Your task to perform on an android device: delete the emails in spam in the gmail app Image 0: 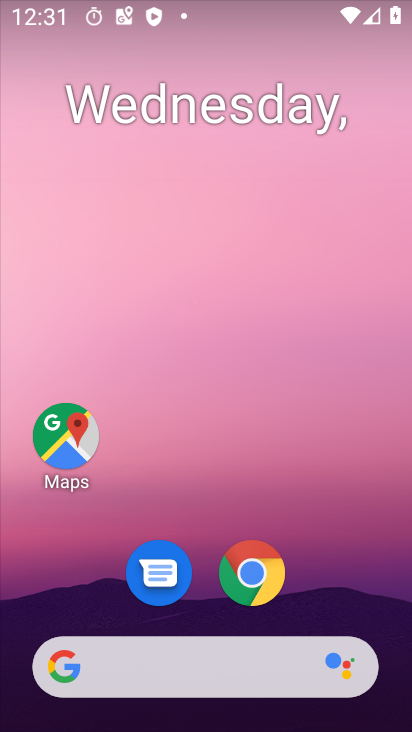
Step 0: drag from (268, 552) to (199, 76)
Your task to perform on an android device: delete the emails in spam in the gmail app Image 1: 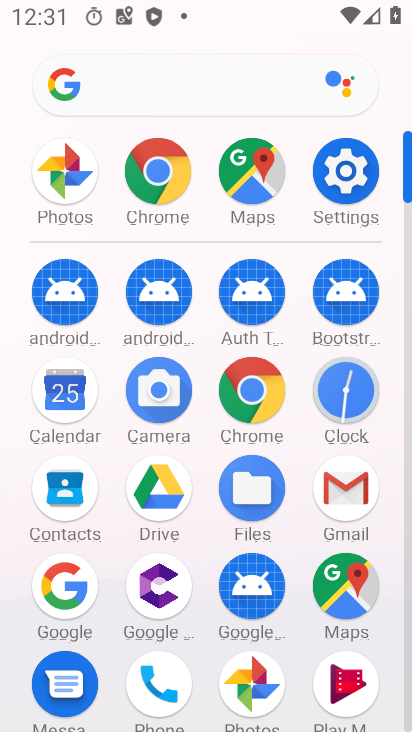
Step 1: click (344, 494)
Your task to perform on an android device: delete the emails in spam in the gmail app Image 2: 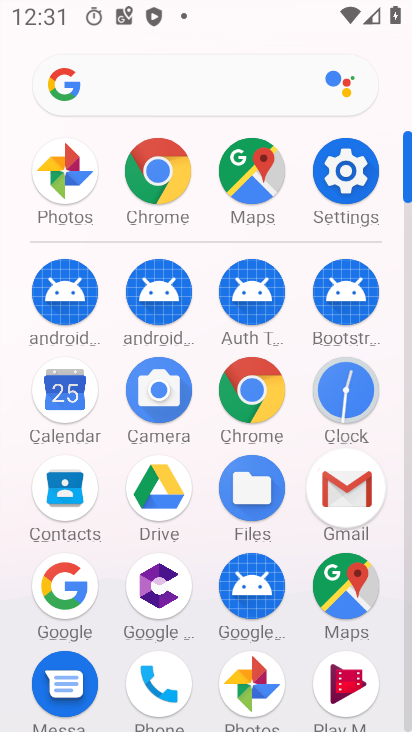
Step 2: click (353, 488)
Your task to perform on an android device: delete the emails in spam in the gmail app Image 3: 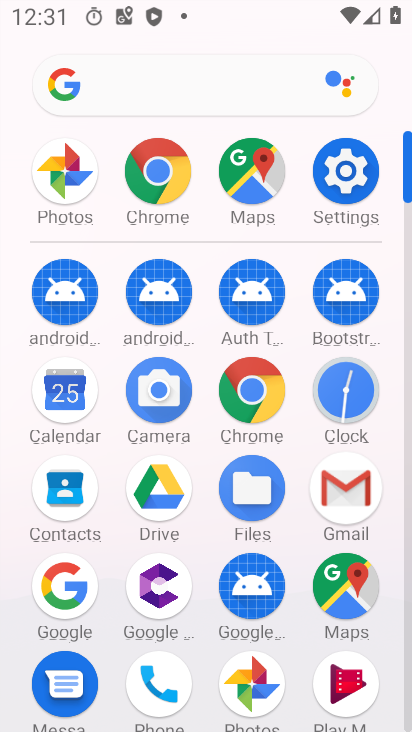
Step 3: click (351, 487)
Your task to perform on an android device: delete the emails in spam in the gmail app Image 4: 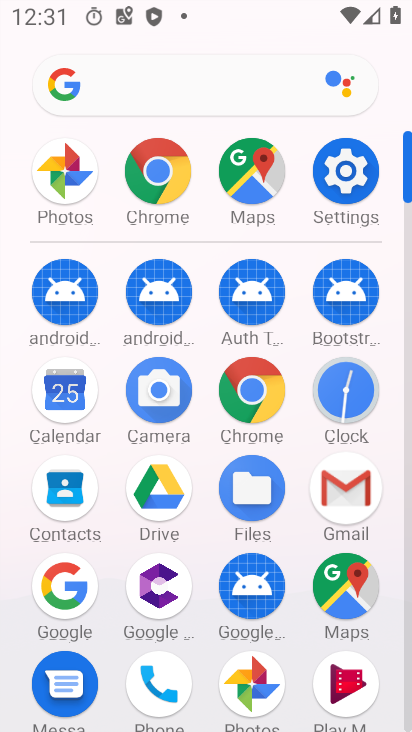
Step 4: click (343, 476)
Your task to perform on an android device: delete the emails in spam in the gmail app Image 5: 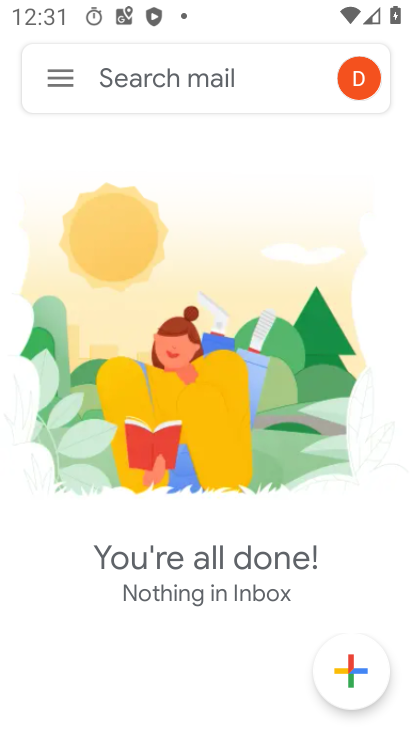
Step 5: click (341, 473)
Your task to perform on an android device: delete the emails in spam in the gmail app Image 6: 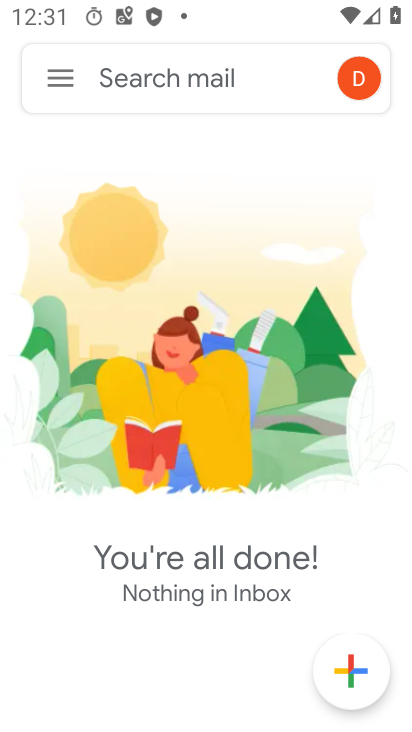
Step 6: click (341, 472)
Your task to perform on an android device: delete the emails in spam in the gmail app Image 7: 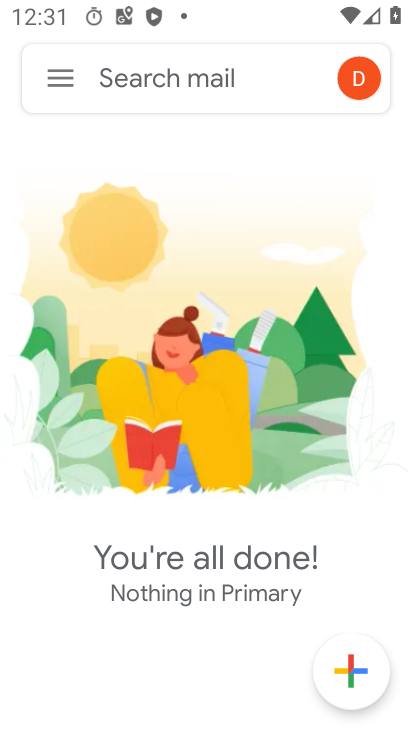
Step 7: press back button
Your task to perform on an android device: delete the emails in spam in the gmail app Image 8: 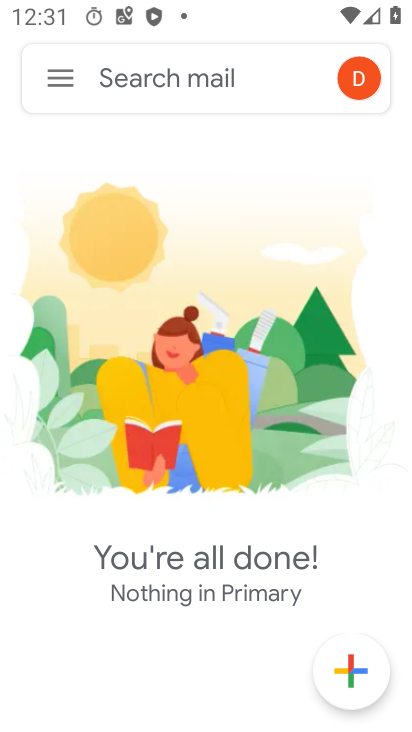
Step 8: press back button
Your task to perform on an android device: delete the emails in spam in the gmail app Image 9: 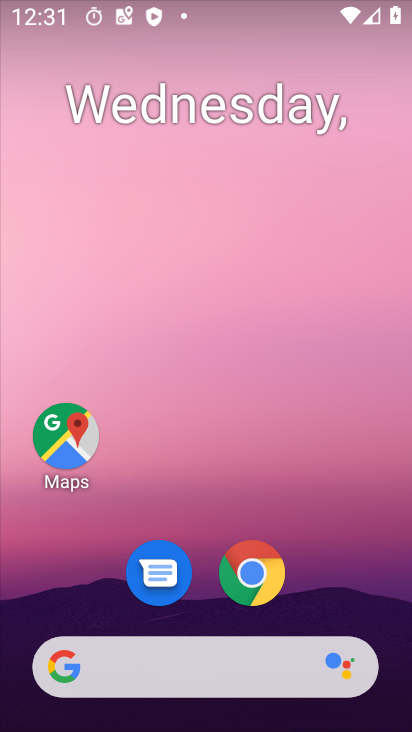
Step 9: drag from (374, 586) to (218, 71)
Your task to perform on an android device: delete the emails in spam in the gmail app Image 10: 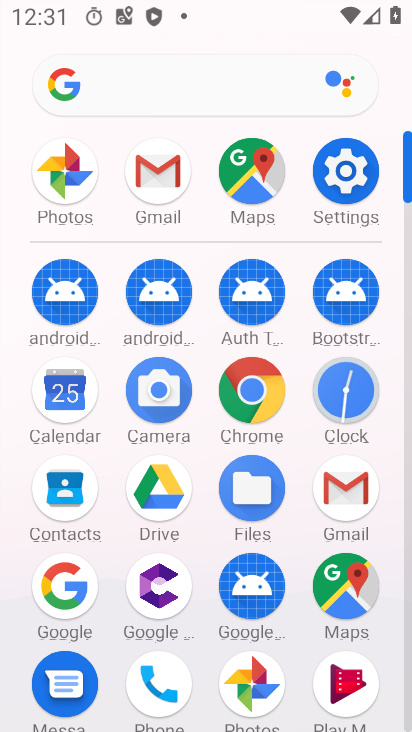
Step 10: click (347, 481)
Your task to perform on an android device: delete the emails in spam in the gmail app Image 11: 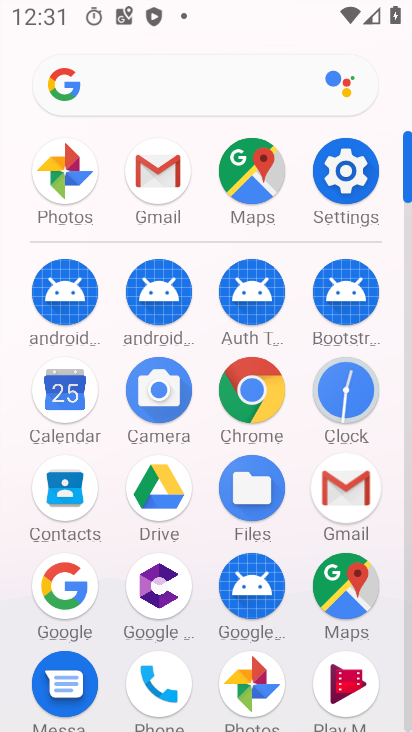
Step 11: click (347, 481)
Your task to perform on an android device: delete the emails in spam in the gmail app Image 12: 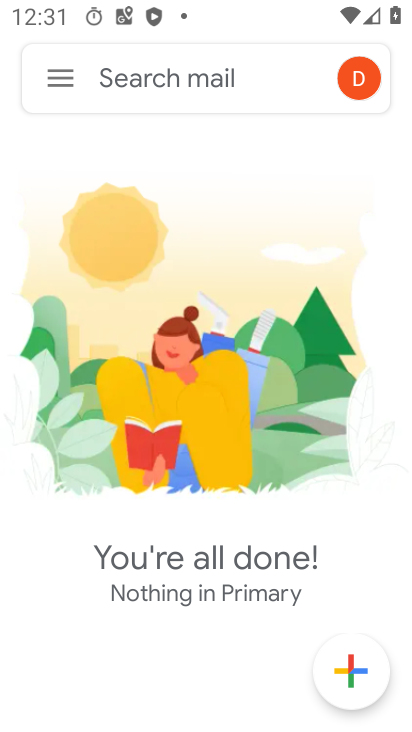
Step 12: drag from (187, 446) to (186, 58)
Your task to perform on an android device: delete the emails in spam in the gmail app Image 13: 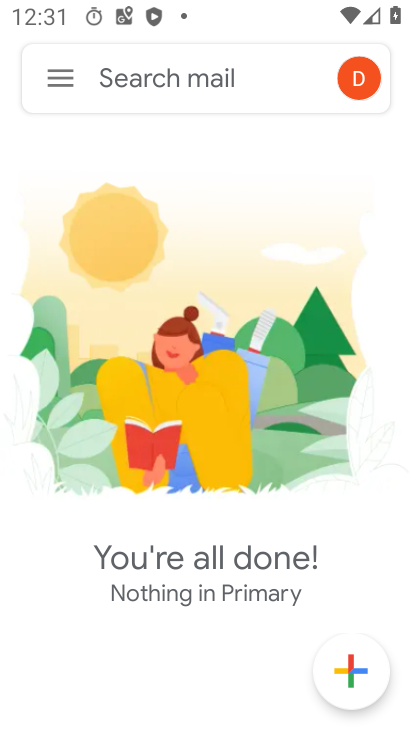
Step 13: click (65, 79)
Your task to perform on an android device: delete the emails in spam in the gmail app Image 14: 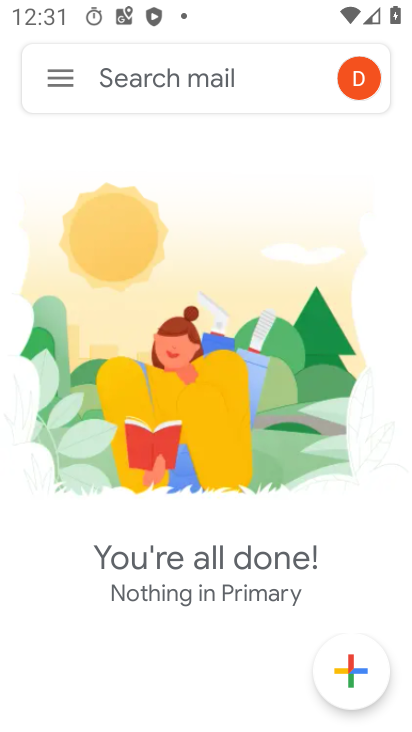
Step 14: click (70, 78)
Your task to perform on an android device: delete the emails in spam in the gmail app Image 15: 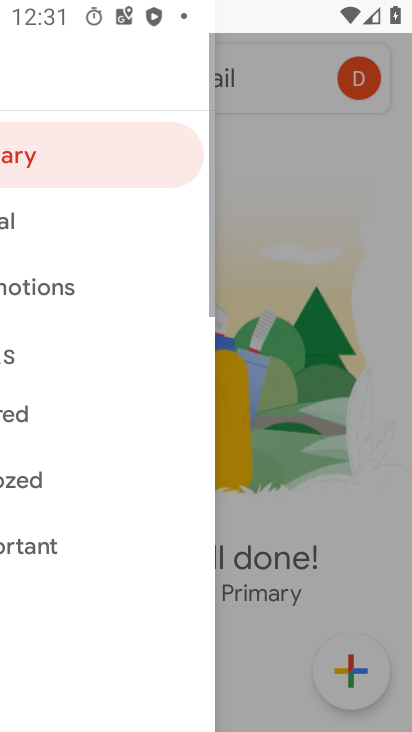
Step 15: click (70, 78)
Your task to perform on an android device: delete the emails in spam in the gmail app Image 16: 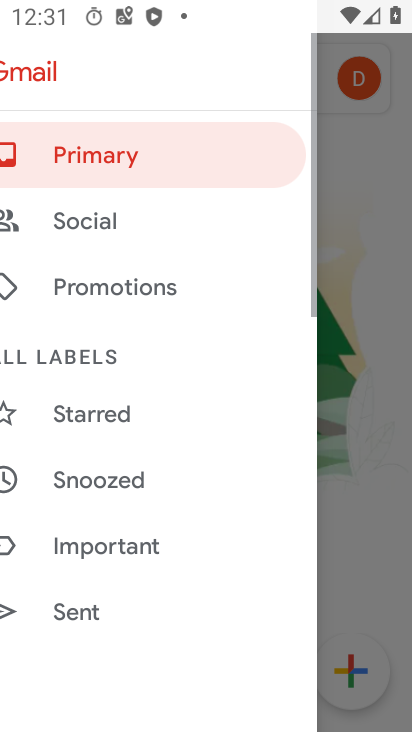
Step 16: click (74, 78)
Your task to perform on an android device: delete the emails in spam in the gmail app Image 17: 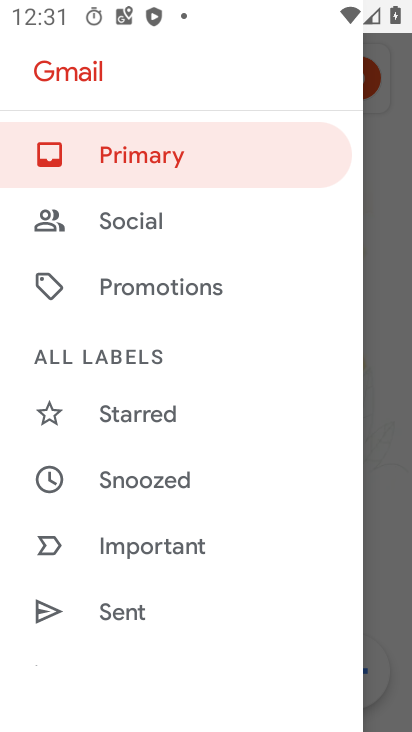
Step 17: drag from (161, 595) to (160, 267)
Your task to perform on an android device: delete the emails in spam in the gmail app Image 18: 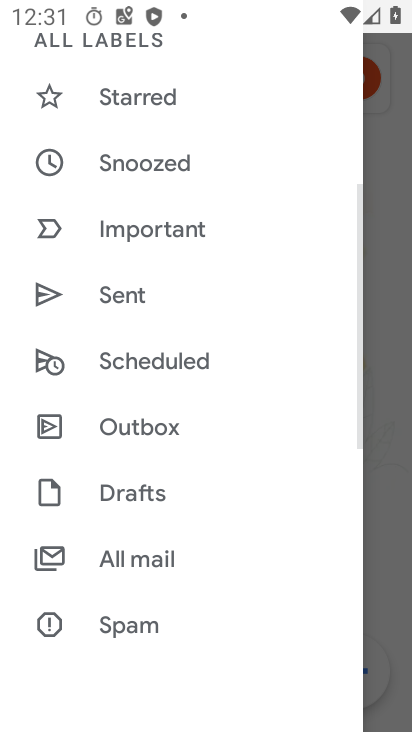
Step 18: drag from (199, 529) to (182, 307)
Your task to perform on an android device: delete the emails in spam in the gmail app Image 19: 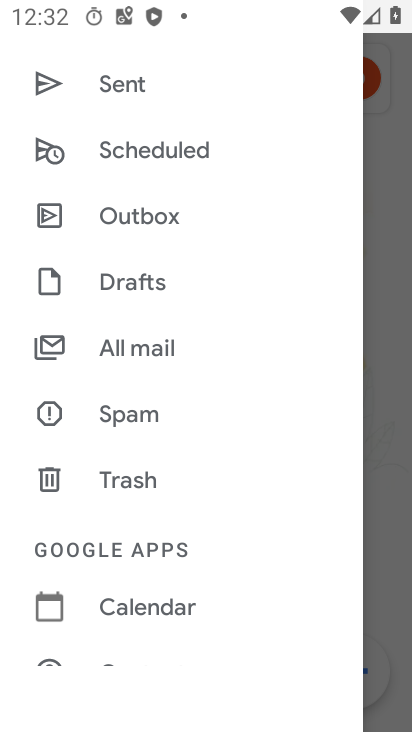
Step 19: click (141, 407)
Your task to perform on an android device: delete the emails in spam in the gmail app Image 20: 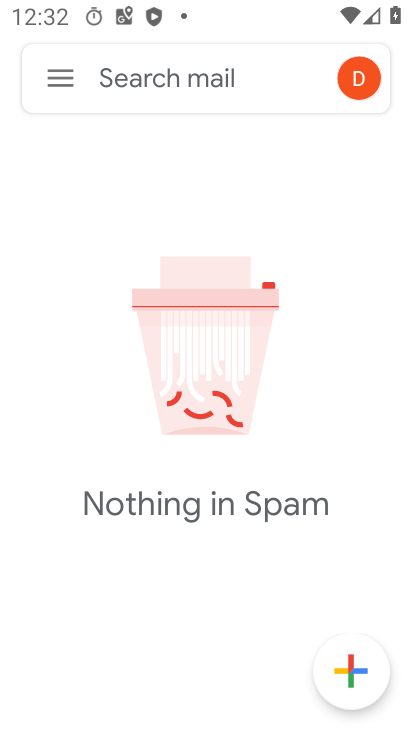
Step 20: click (61, 76)
Your task to perform on an android device: delete the emails in spam in the gmail app Image 21: 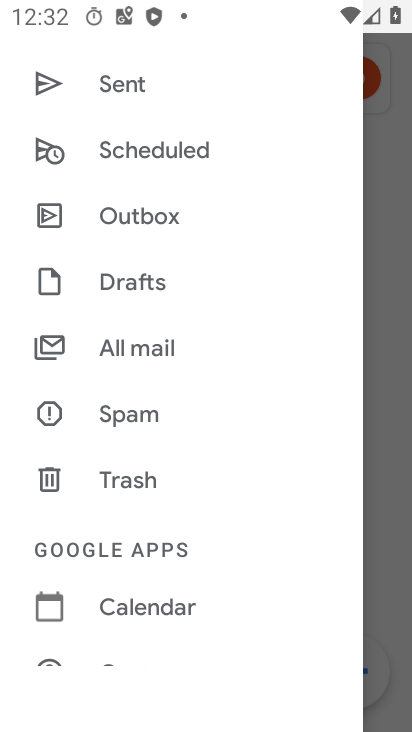
Step 21: drag from (188, 506) to (182, 207)
Your task to perform on an android device: delete the emails in spam in the gmail app Image 22: 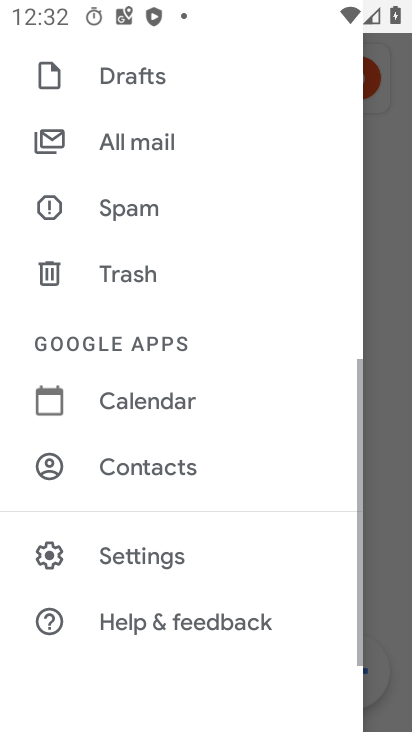
Step 22: drag from (248, 556) to (228, 295)
Your task to perform on an android device: delete the emails in spam in the gmail app Image 23: 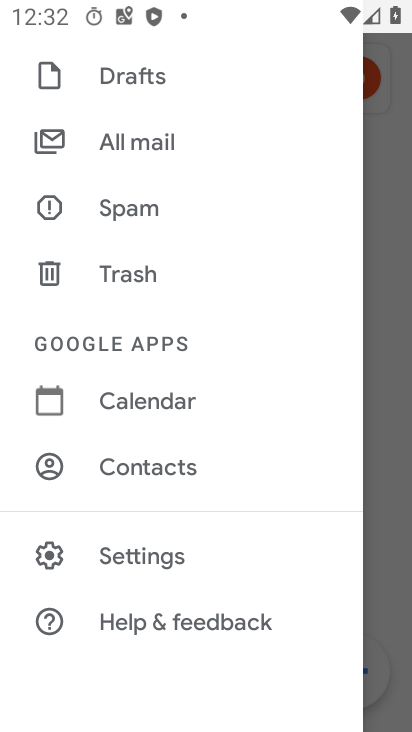
Step 23: click (127, 206)
Your task to perform on an android device: delete the emails in spam in the gmail app Image 24: 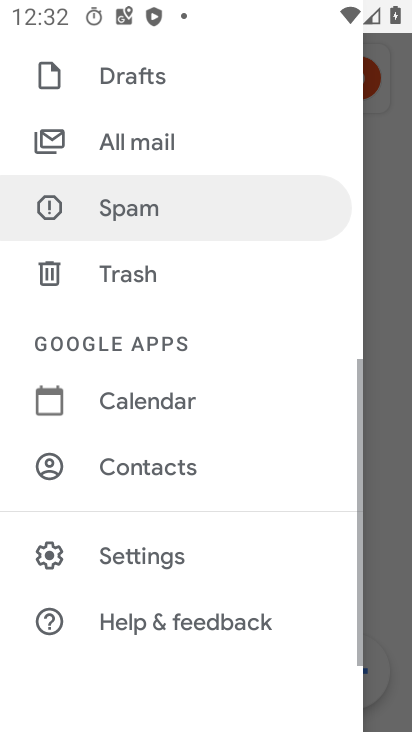
Step 24: click (127, 206)
Your task to perform on an android device: delete the emails in spam in the gmail app Image 25: 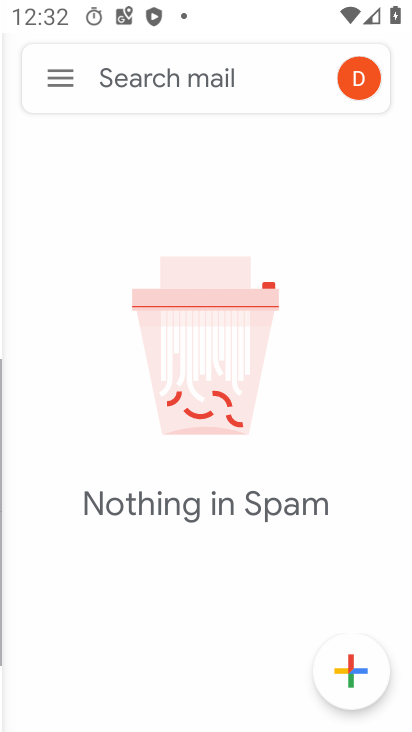
Step 25: click (127, 206)
Your task to perform on an android device: delete the emails in spam in the gmail app Image 26: 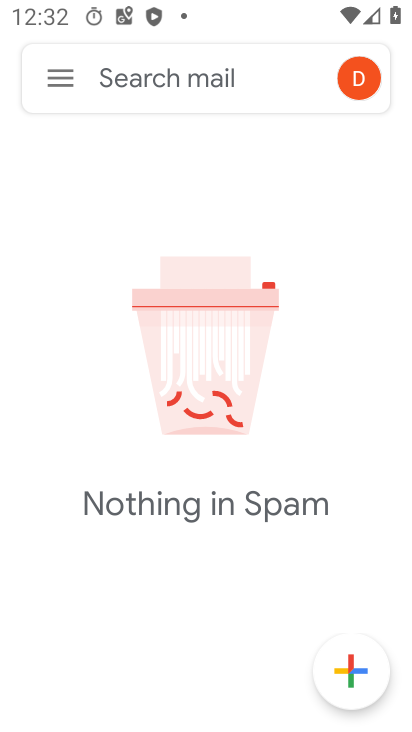
Step 26: task complete